Your task to perform on an android device: stop showing notifications on the lock screen Image 0: 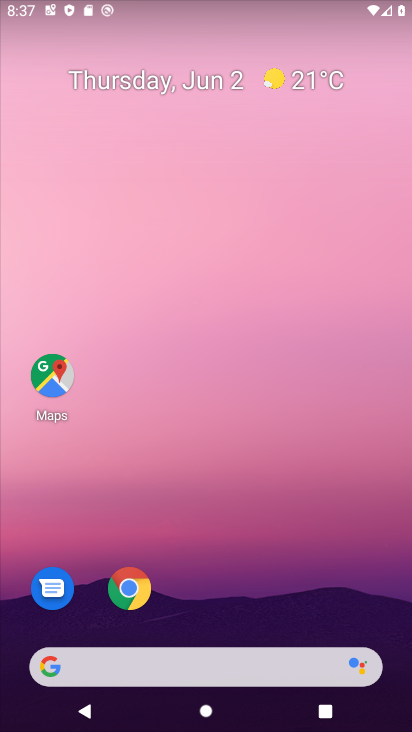
Step 0: drag from (185, 664) to (200, 53)
Your task to perform on an android device: stop showing notifications on the lock screen Image 1: 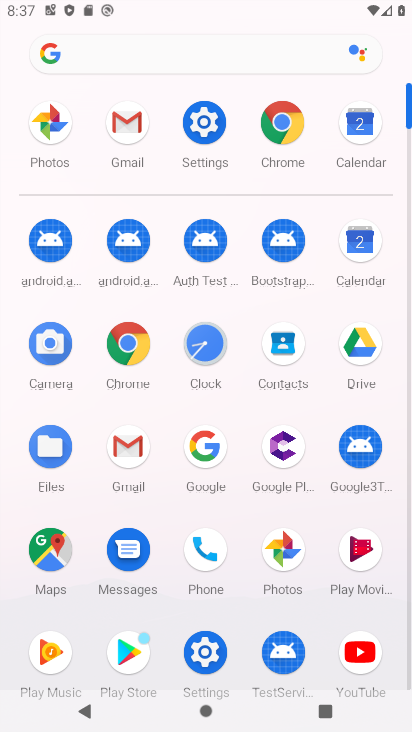
Step 1: click (215, 113)
Your task to perform on an android device: stop showing notifications on the lock screen Image 2: 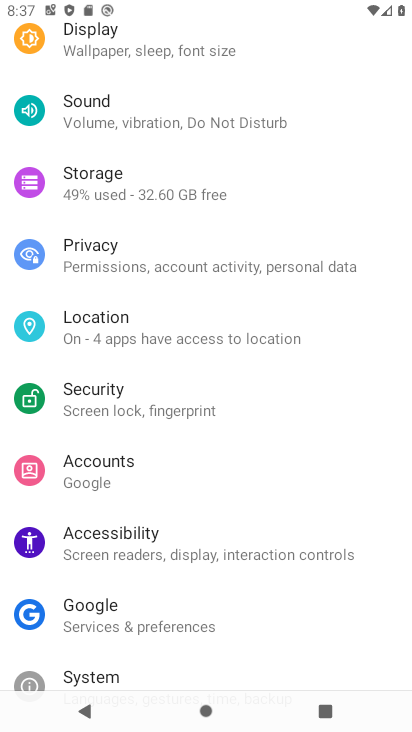
Step 2: drag from (146, 147) to (164, 502)
Your task to perform on an android device: stop showing notifications on the lock screen Image 3: 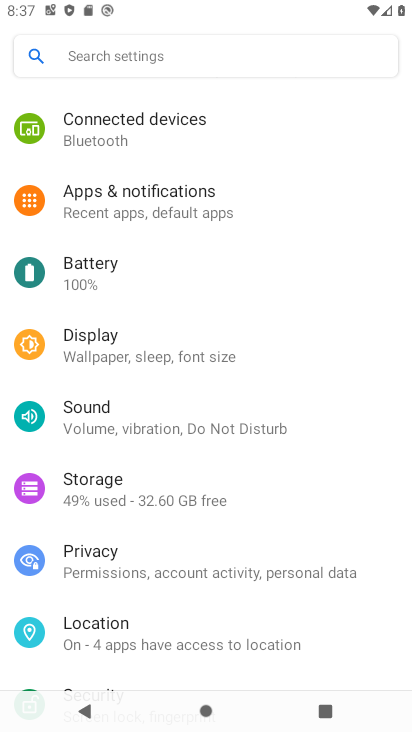
Step 3: drag from (221, 172) to (221, 445)
Your task to perform on an android device: stop showing notifications on the lock screen Image 4: 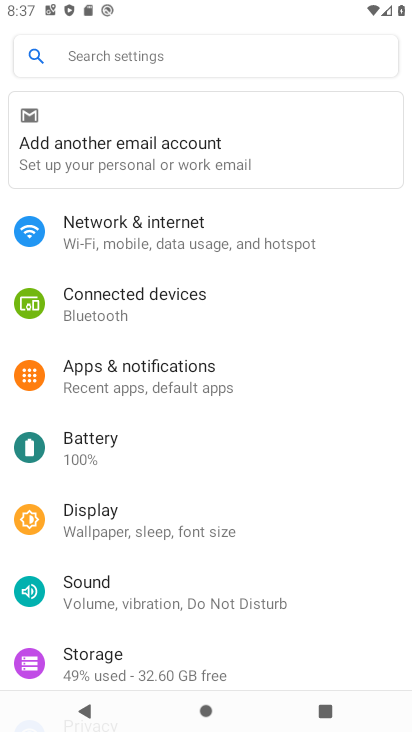
Step 4: click (153, 360)
Your task to perform on an android device: stop showing notifications on the lock screen Image 5: 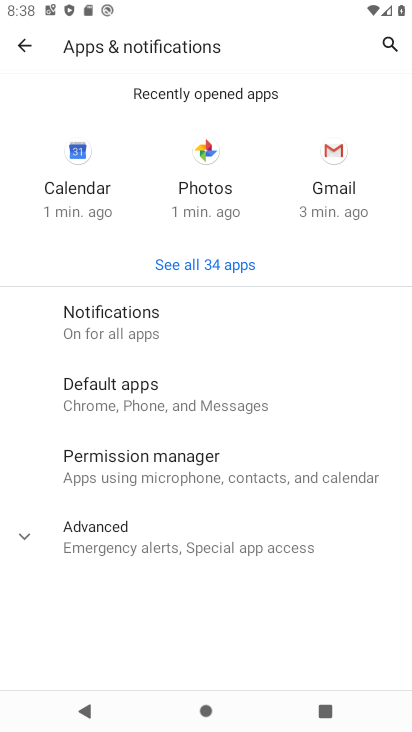
Step 5: click (143, 323)
Your task to perform on an android device: stop showing notifications on the lock screen Image 6: 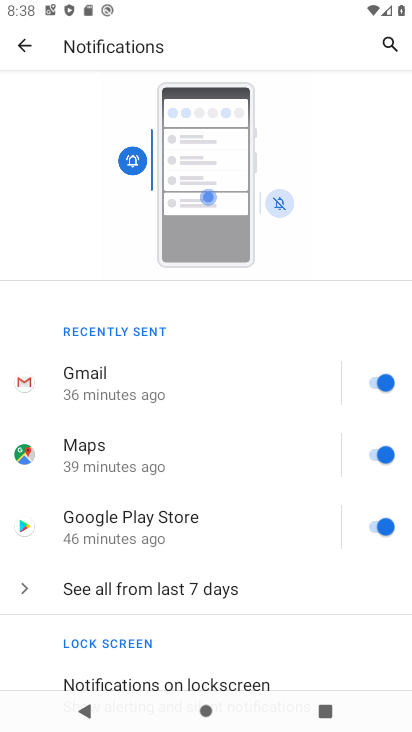
Step 6: drag from (157, 565) to (95, 108)
Your task to perform on an android device: stop showing notifications on the lock screen Image 7: 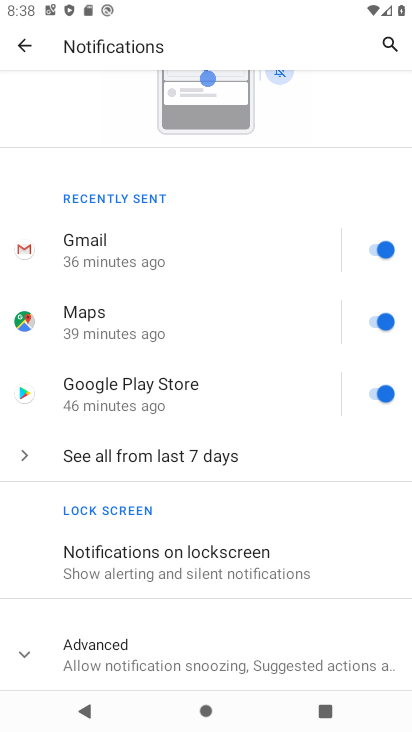
Step 7: click (213, 551)
Your task to perform on an android device: stop showing notifications on the lock screen Image 8: 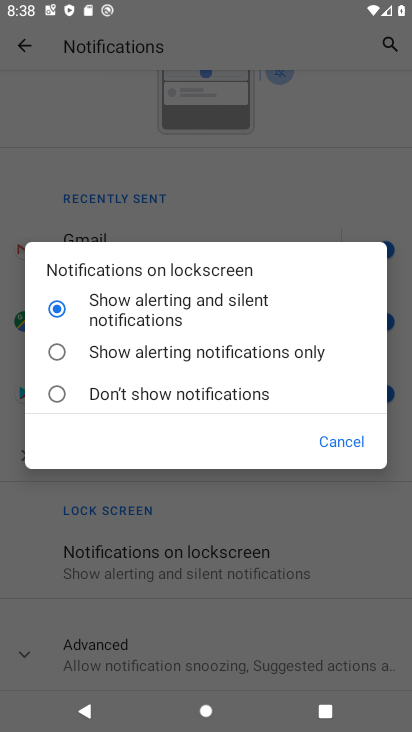
Step 8: click (52, 402)
Your task to perform on an android device: stop showing notifications on the lock screen Image 9: 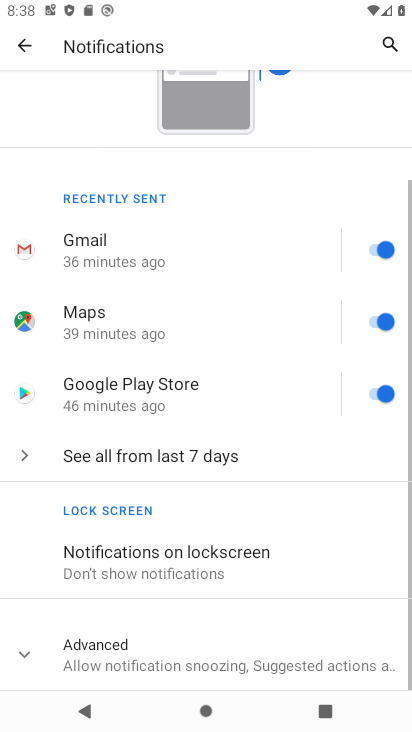
Step 9: task complete